Your task to perform on an android device: Open Reddit.com Image 0: 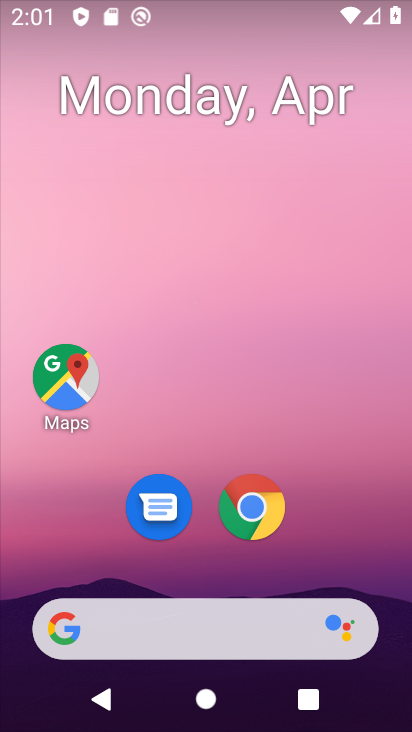
Step 0: click (389, 627)
Your task to perform on an android device: Open Reddit.com Image 1: 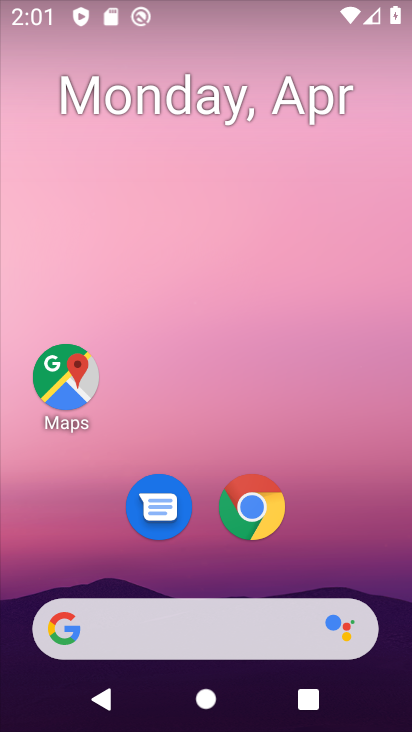
Step 1: click (247, 508)
Your task to perform on an android device: Open Reddit.com Image 2: 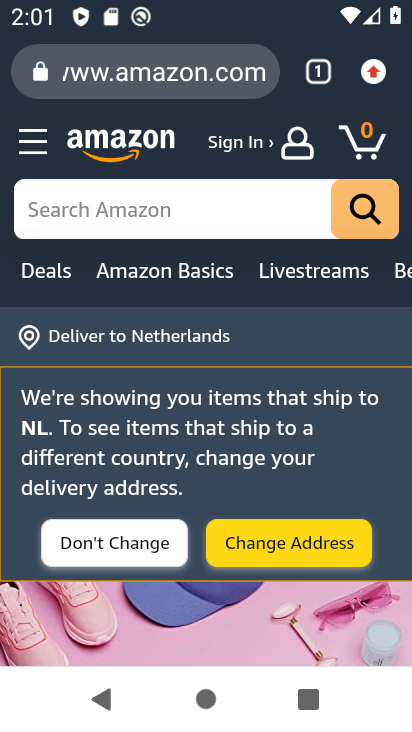
Step 2: click (145, 67)
Your task to perform on an android device: Open Reddit.com Image 3: 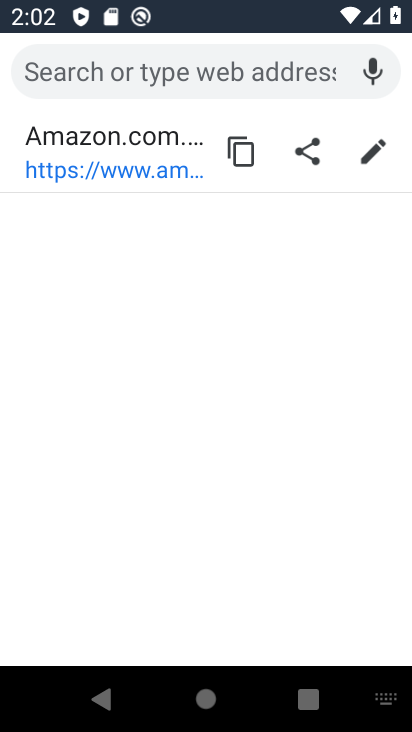
Step 3: type "reddit.com"
Your task to perform on an android device: Open Reddit.com Image 4: 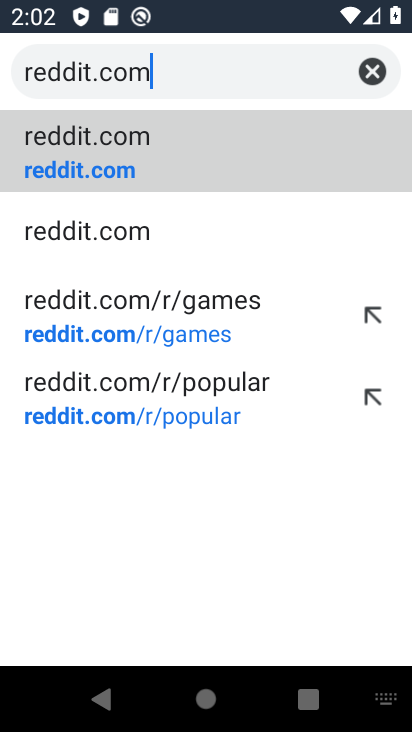
Step 4: click (85, 151)
Your task to perform on an android device: Open Reddit.com Image 5: 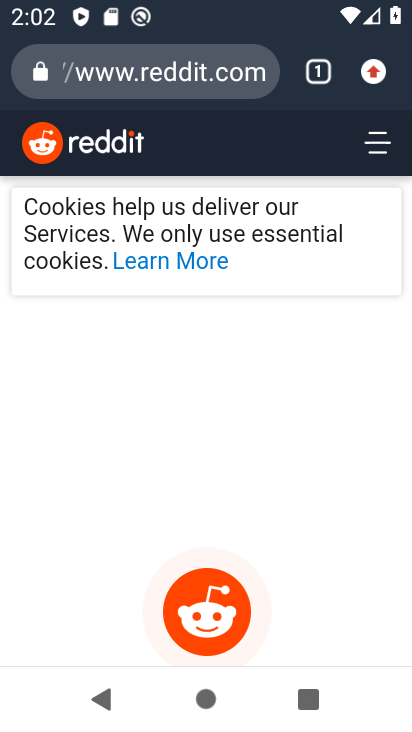
Step 5: task complete